Your task to perform on an android device: turn off notifications in google photos Image 0: 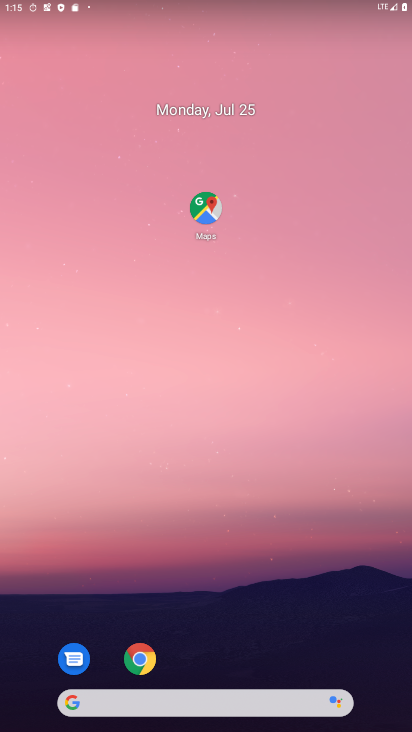
Step 0: drag from (71, 705) to (181, 293)
Your task to perform on an android device: turn off notifications in google photos Image 1: 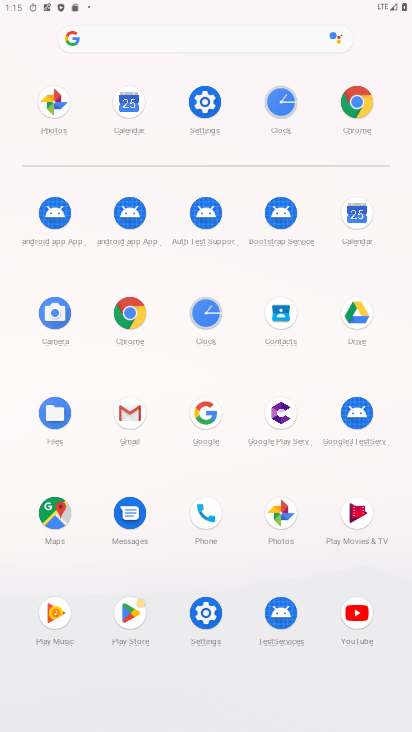
Step 1: click (275, 516)
Your task to perform on an android device: turn off notifications in google photos Image 2: 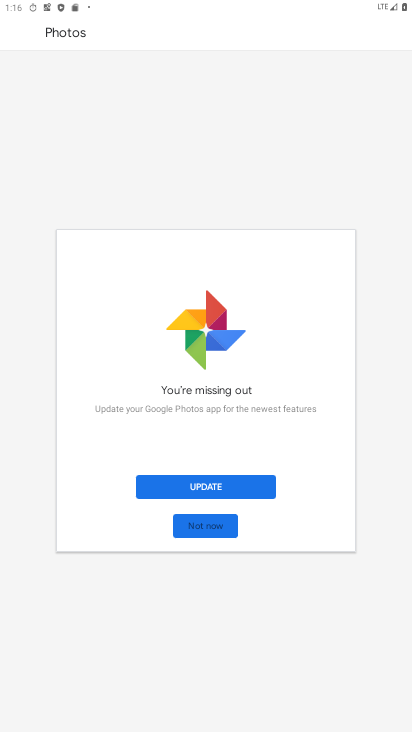
Step 2: click (203, 527)
Your task to perform on an android device: turn off notifications in google photos Image 3: 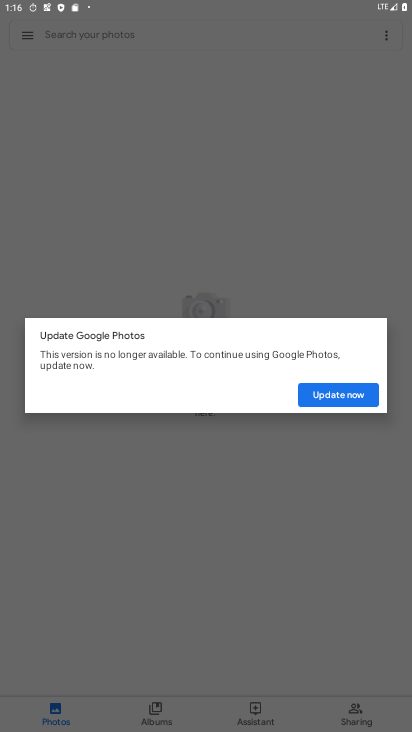
Step 3: click (319, 388)
Your task to perform on an android device: turn off notifications in google photos Image 4: 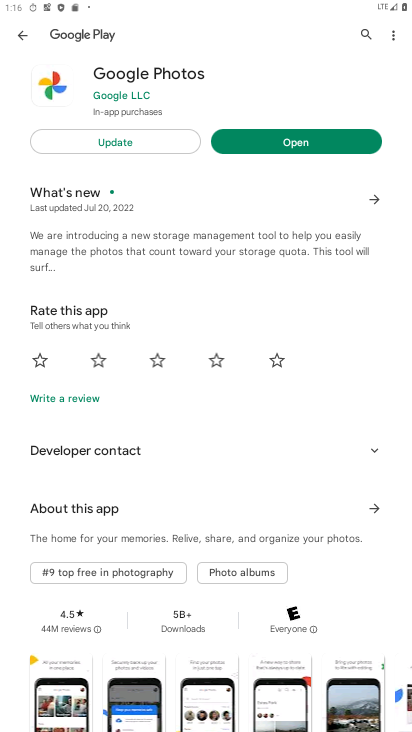
Step 4: click (295, 136)
Your task to perform on an android device: turn off notifications in google photos Image 5: 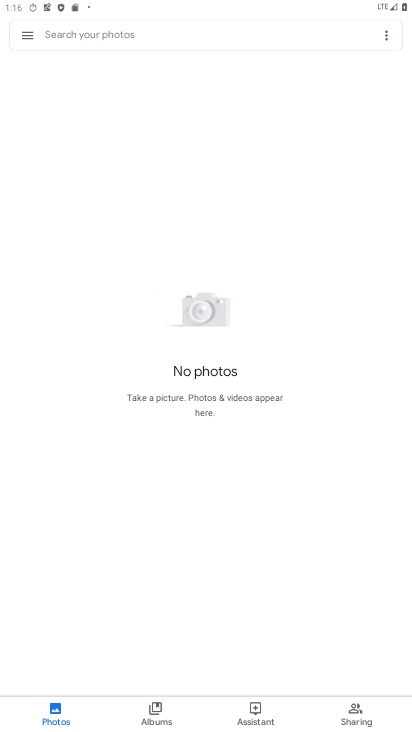
Step 5: click (27, 30)
Your task to perform on an android device: turn off notifications in google photos Image 6: 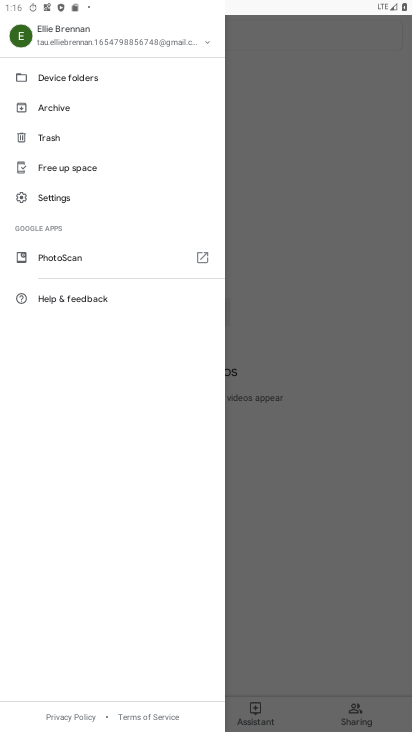
Step 6: click (61, 203)
Your task to perform on an android device: turn off notifications in google photos Image 7: 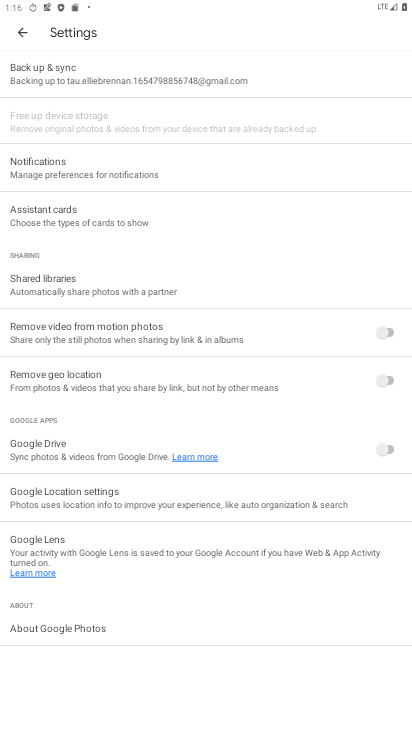
Step 7: click (52, 155)
Your task to perform on an android device: turn off notifications in google photos Image 8: 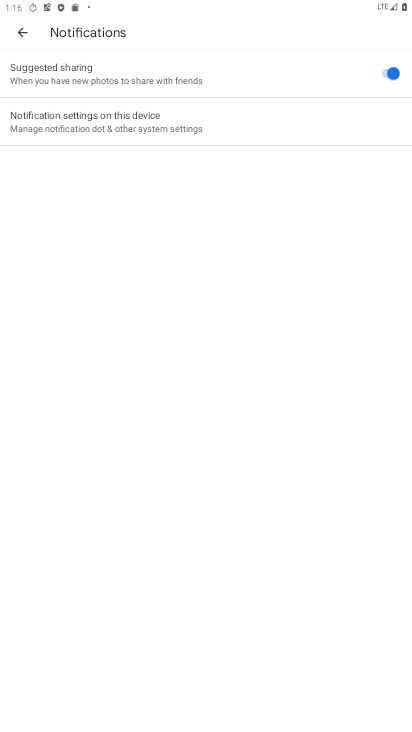
Step 8: click (142, 129)
Your task to perform on an android device: turn off notifications in google photos Image 9: 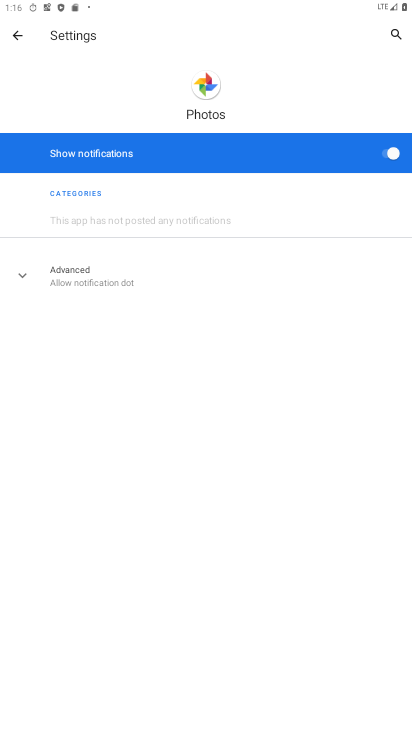
Step 9: click (384, 157)
Your task to perform on an android device: turn off notifications in google photos Image 10: 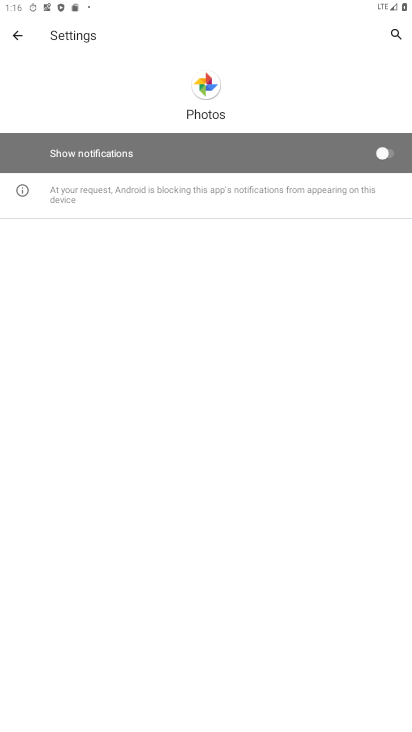
Step 10: task complete